Your task to perform on an android device: Open CNN.com Image 0: 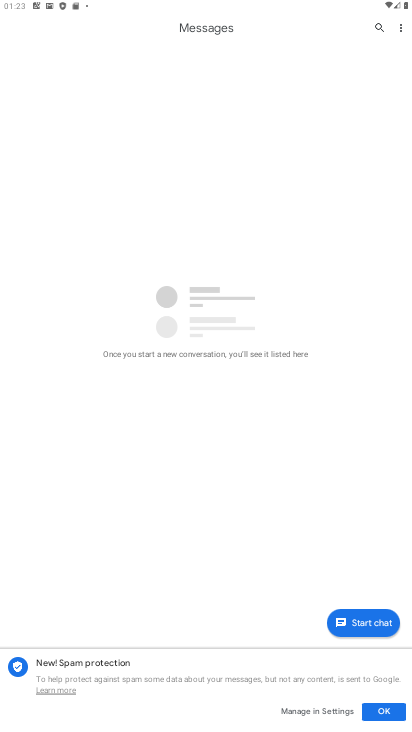
Step 0: press home button
Your task to perform on an android device: Open CNN.com Image 1: 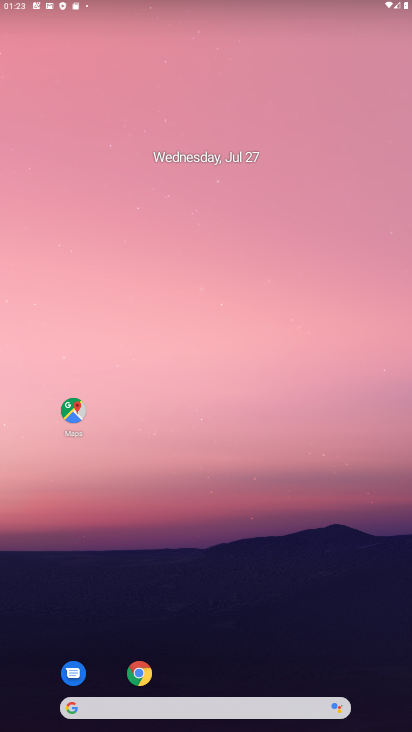
Step 1: click (135, 674)
Your task to perform on an android device: Open CNN.com Image 2: 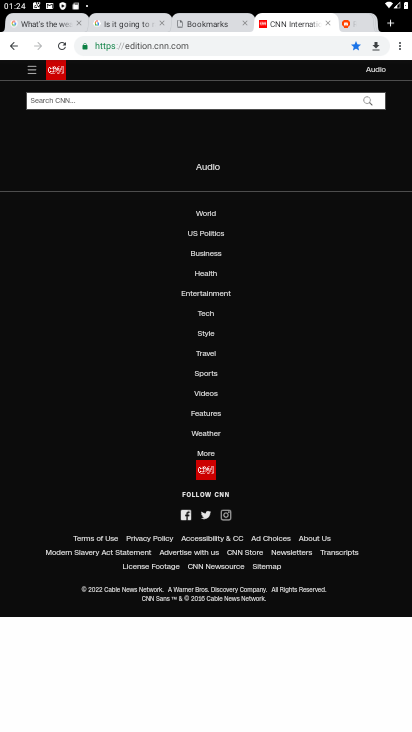
Step 2: task complete